Your task to perform on an android device: open a bookmark in the chrome app Image 0: 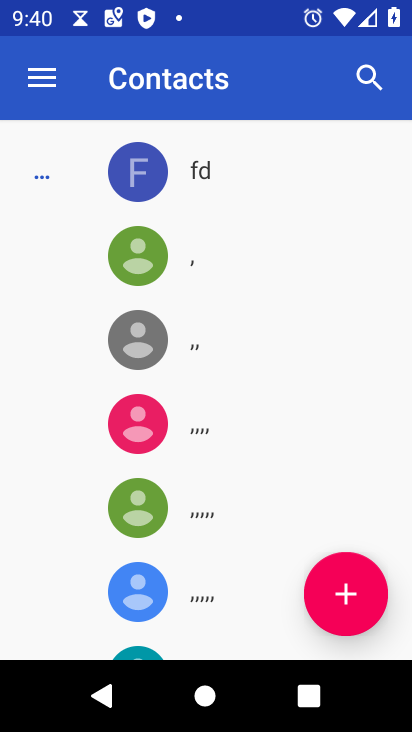
Step 0: press home button
Your task to perform on an android device: open a bookmark in the chrome app Image 1: 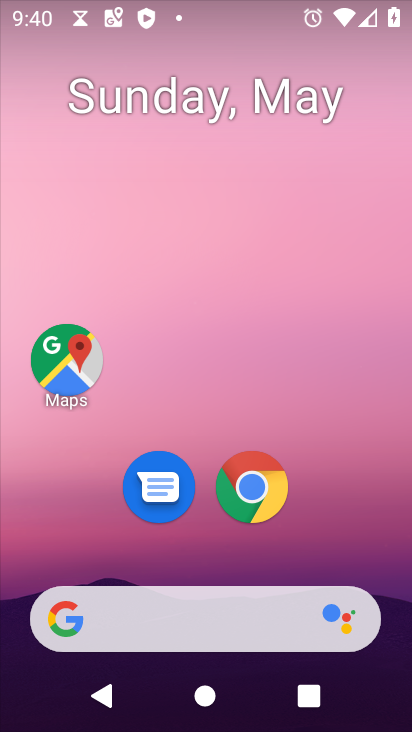
Step 1: drag from (351, 499) to (276, 118)
Your task to perform on an android device: open a bookmark in the chrome app Image 2: 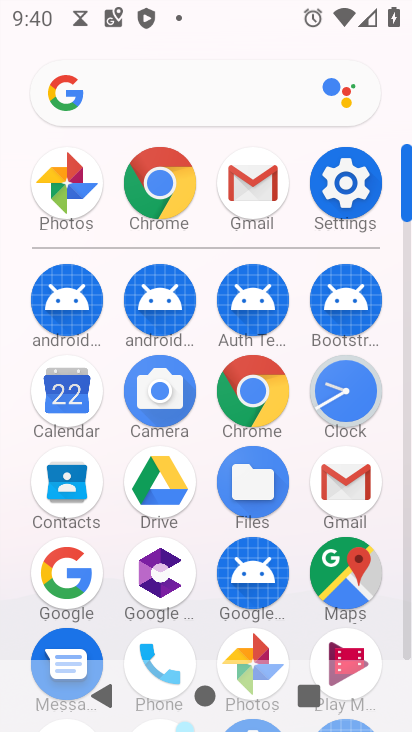
Step 2: click (176, 179)
Your task to perform on an android device: open a bookmark in the chrome app Image 3: 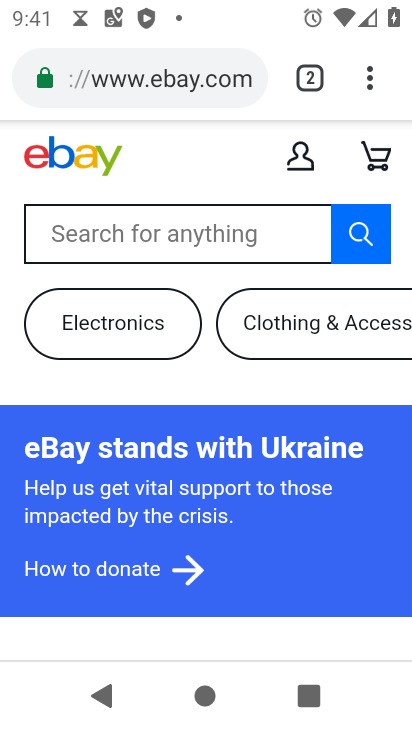
Step 3: task complete